Your task to perform on an android device: turn on priority inbox in the gmail app Image 0: 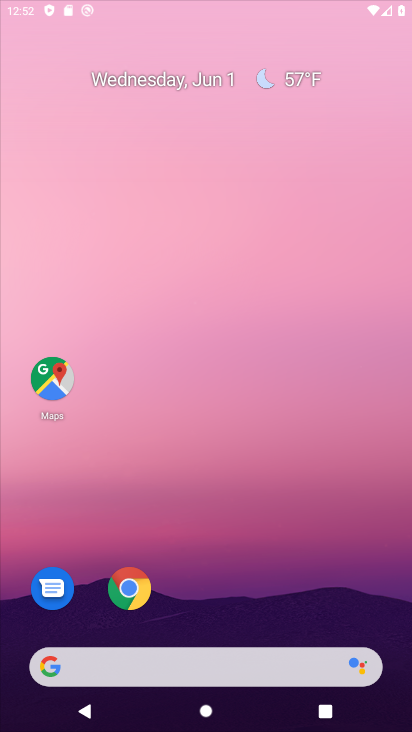
Step 0: drag from (240, 18) to (180, 22)
Your task to perform on an android device: turn on priority inbox in the gmail app Image 1: 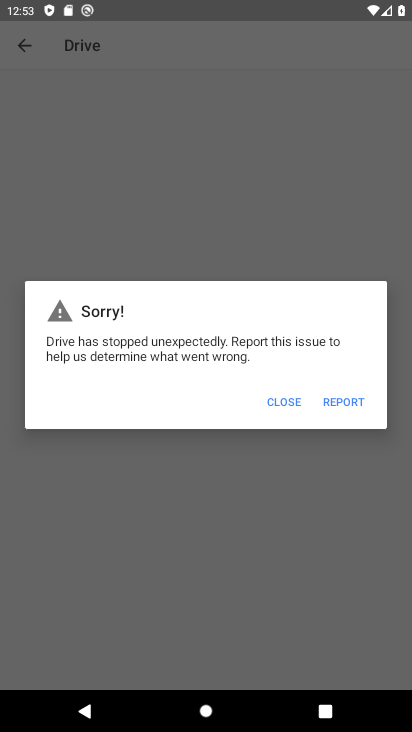
Step 1: press home button
Your task to perform on an android device: turn on priority inbox in the gmail app Image 2: 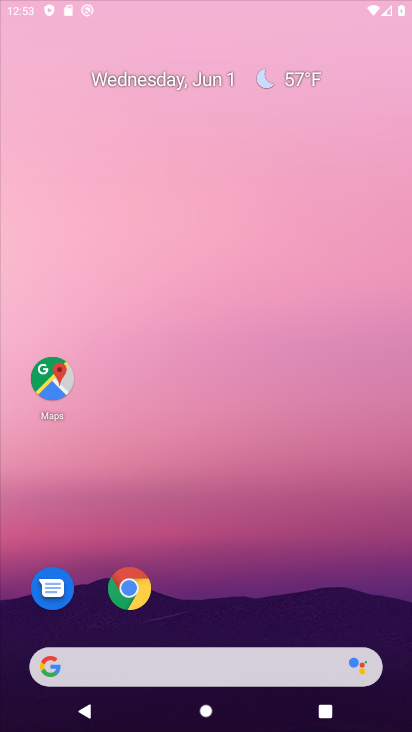
Step 2: drag from (316, 562) to (163, 44)
Your task to perform on an android device: turn on priority inbox in the gmail app Image 3: 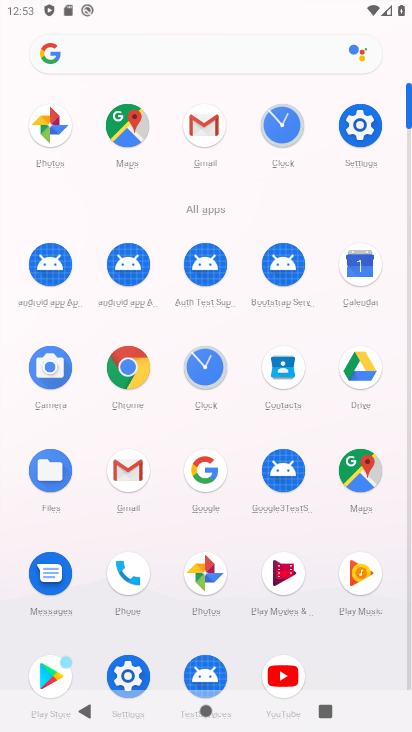
Step 3: click (121, 506)
Your task to perform on an android device: turn on priority inbox in the gmail app Image 4: 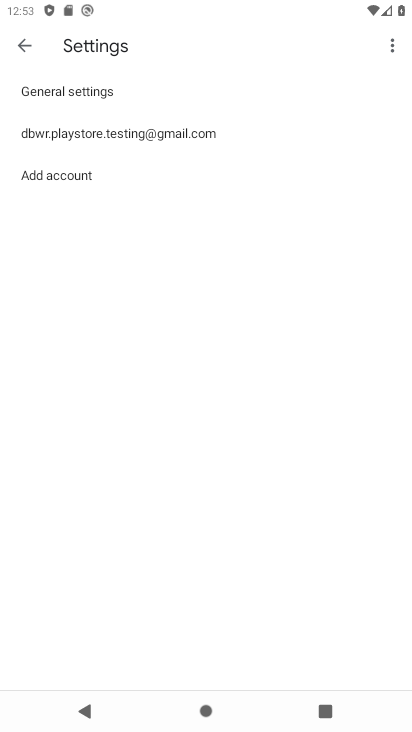
Step 4: click (37, 125)
Your task to perform on an android device: turn on priority inbox in the gmail app Image 5: 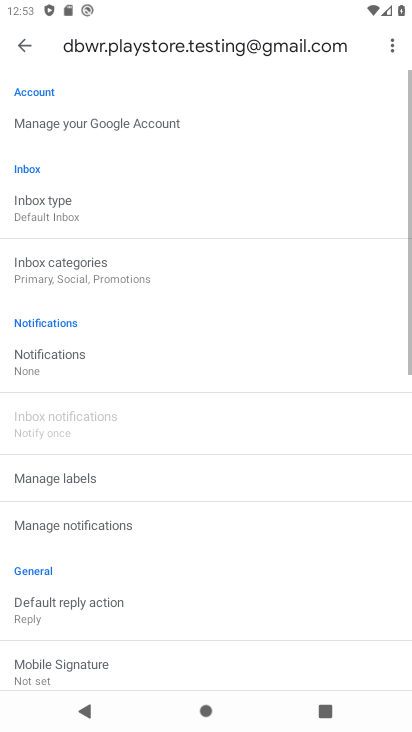
Step 5: click (70, 229)
Your task to perform on an android device: turn on priority inbox in the gmail app Image 6: 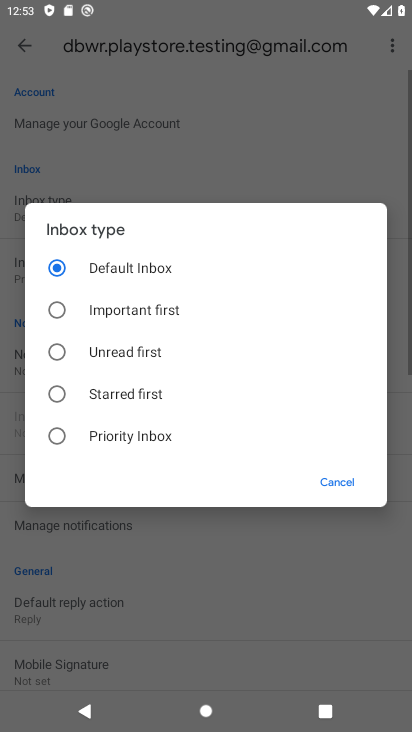
Step 6: click (120, 425)
Your task to perform on an android device: turn on priority inbox in the gmail app Image 7: 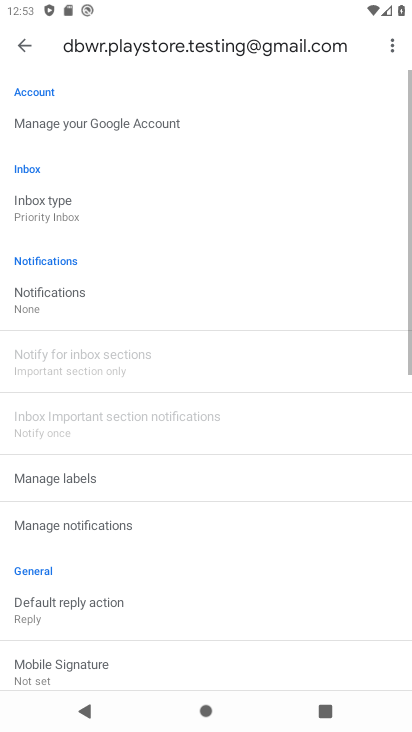
Step 7: task complete